Your task to perform on an android device: refresh tabs in the chrome app Image 0: 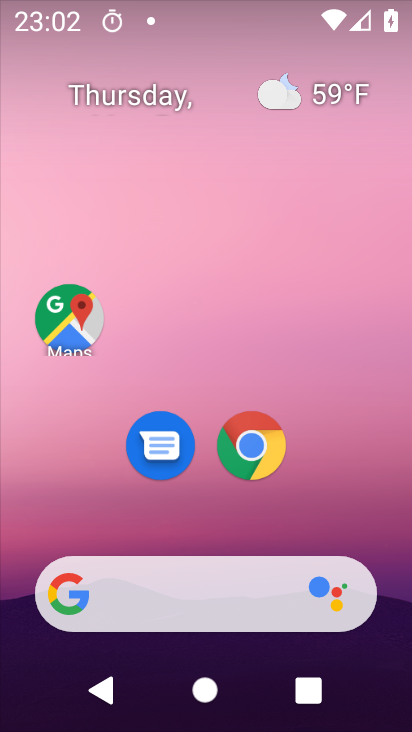
Step 0: click (259, 452)
Your task to perform on an android device: refresh tabs in the chrome app Image 1: 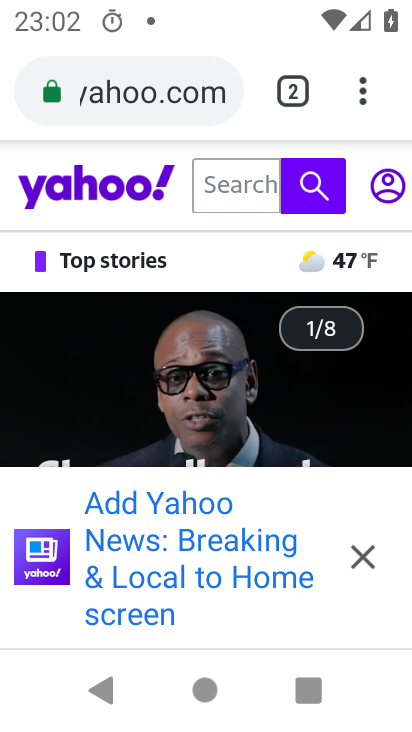
Step 1: click (362, 79)
Your task to perform on an android device: refresh tabs in the chrome app Image 2: 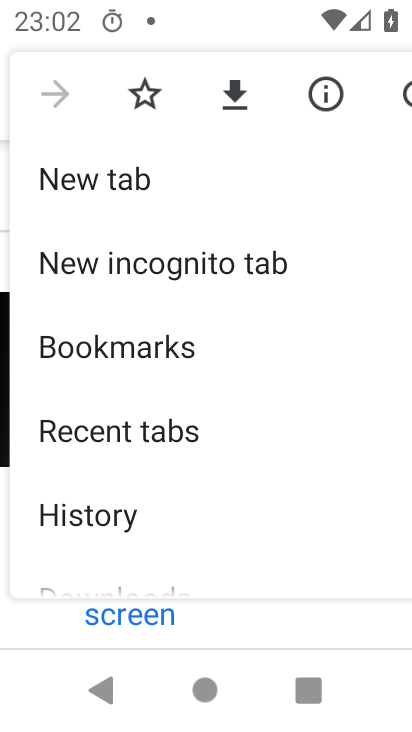
Step 2: click (397, 106)
Your task to perform on an android device: refresh tabs in the chrome app Image 3: 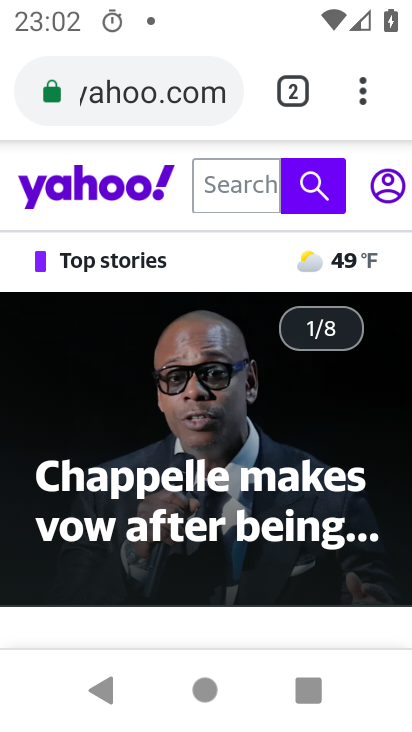
Step 3: task complete